Your task to perform on an android device: Open privacy settings Image 0: 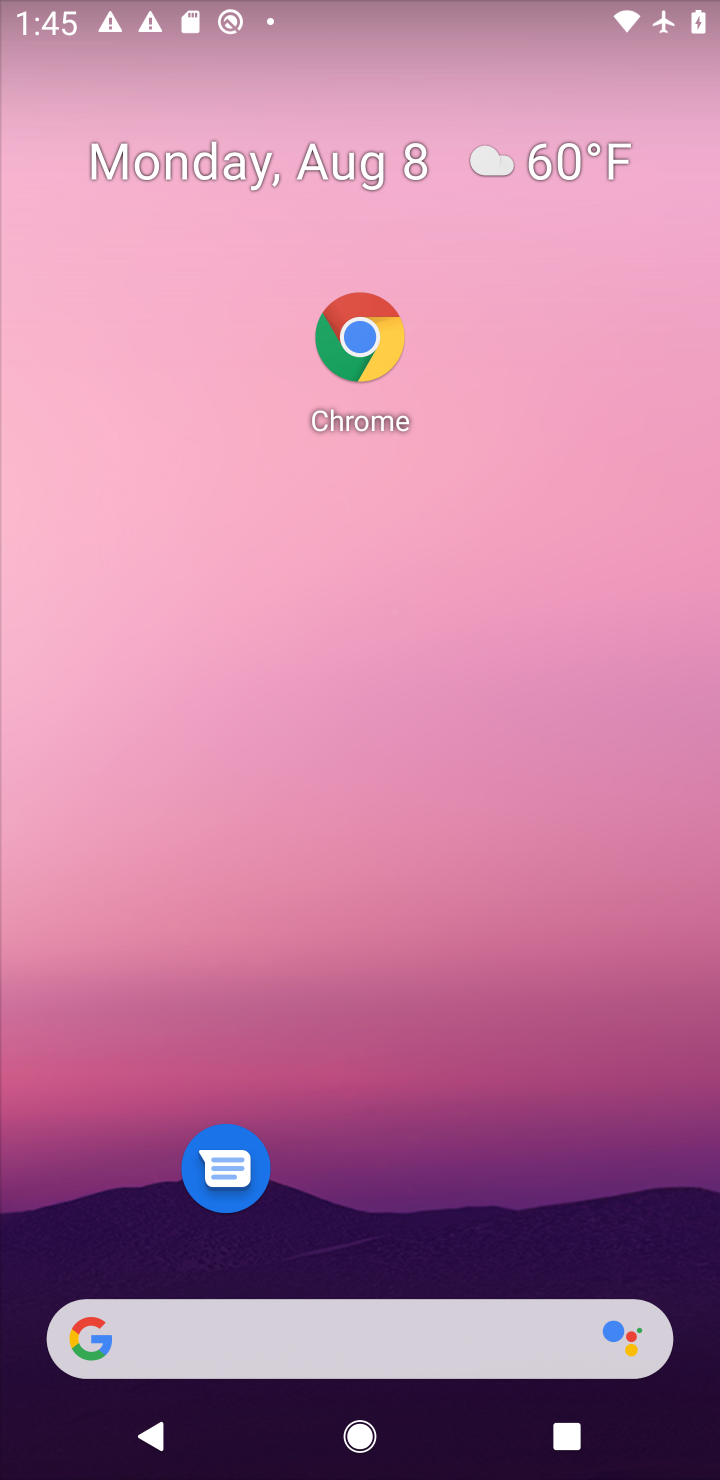
Step 0: drag from (445, 1256) to (173, 13)
Your task to perform on an android device: Open privacy settings Image 1: 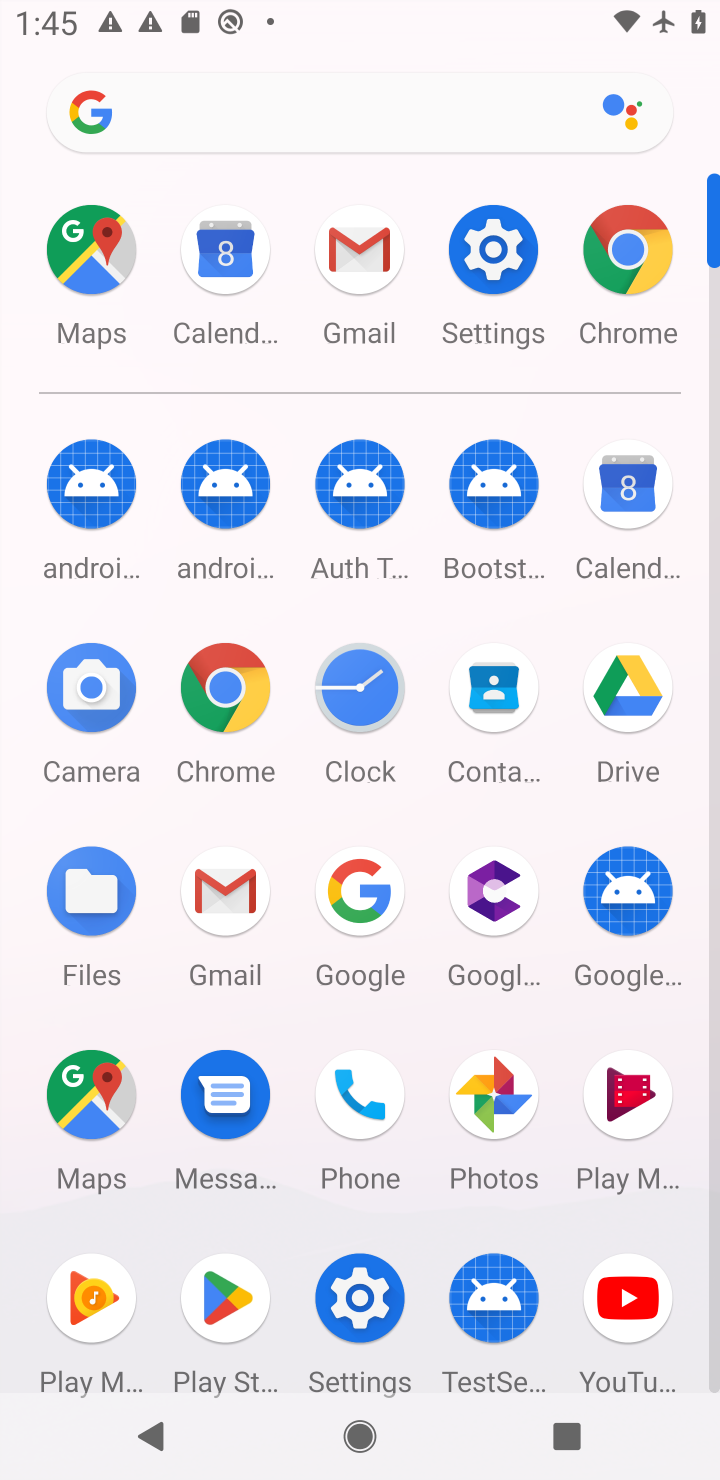
Step 1: click (500, 336)
Your task to perform on an android device: Open privacy settings Image 2: 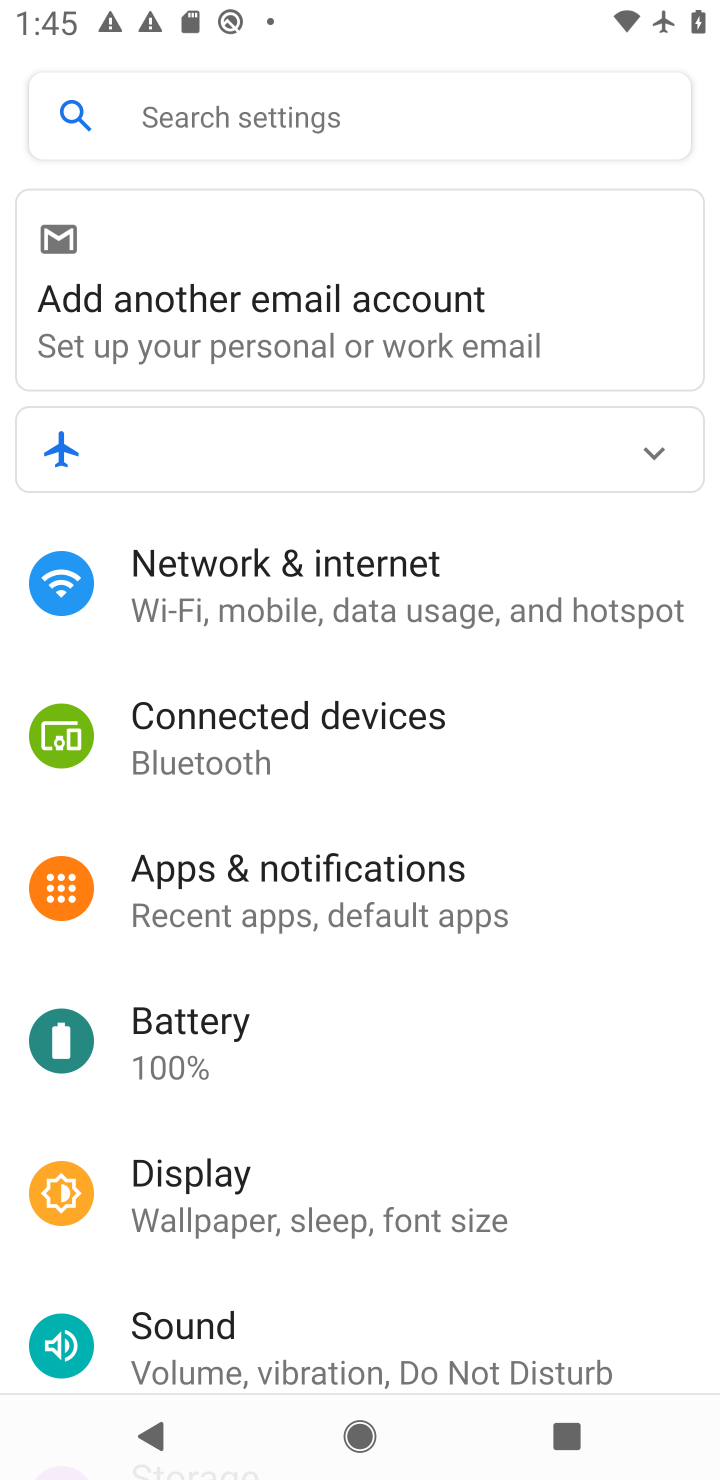
Step 2: drag from (406, 1290) to (453, 217)
Your task to perform on an android device: Open privacy settings Image 3: 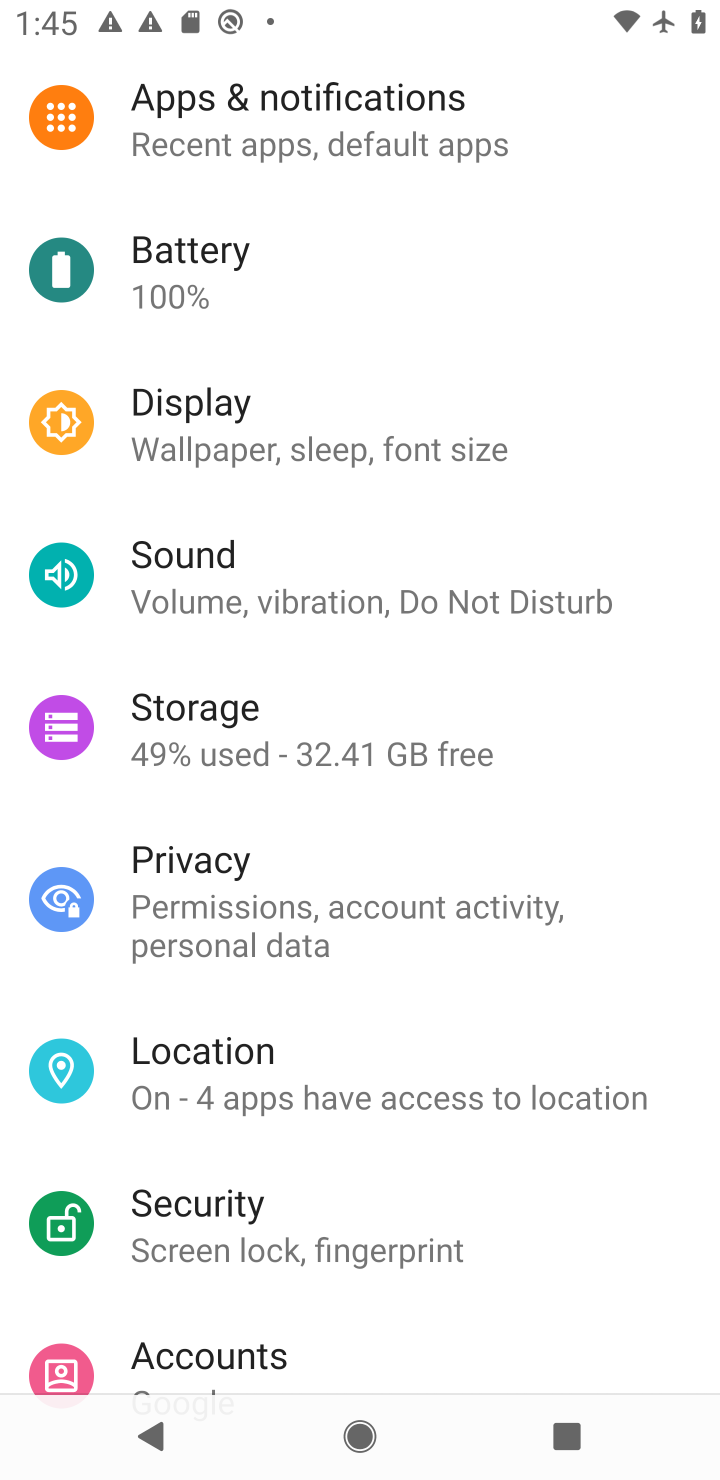
Step 3: click (354, 948)
Your task to perform on an android device: Open privacy settings Image 4: 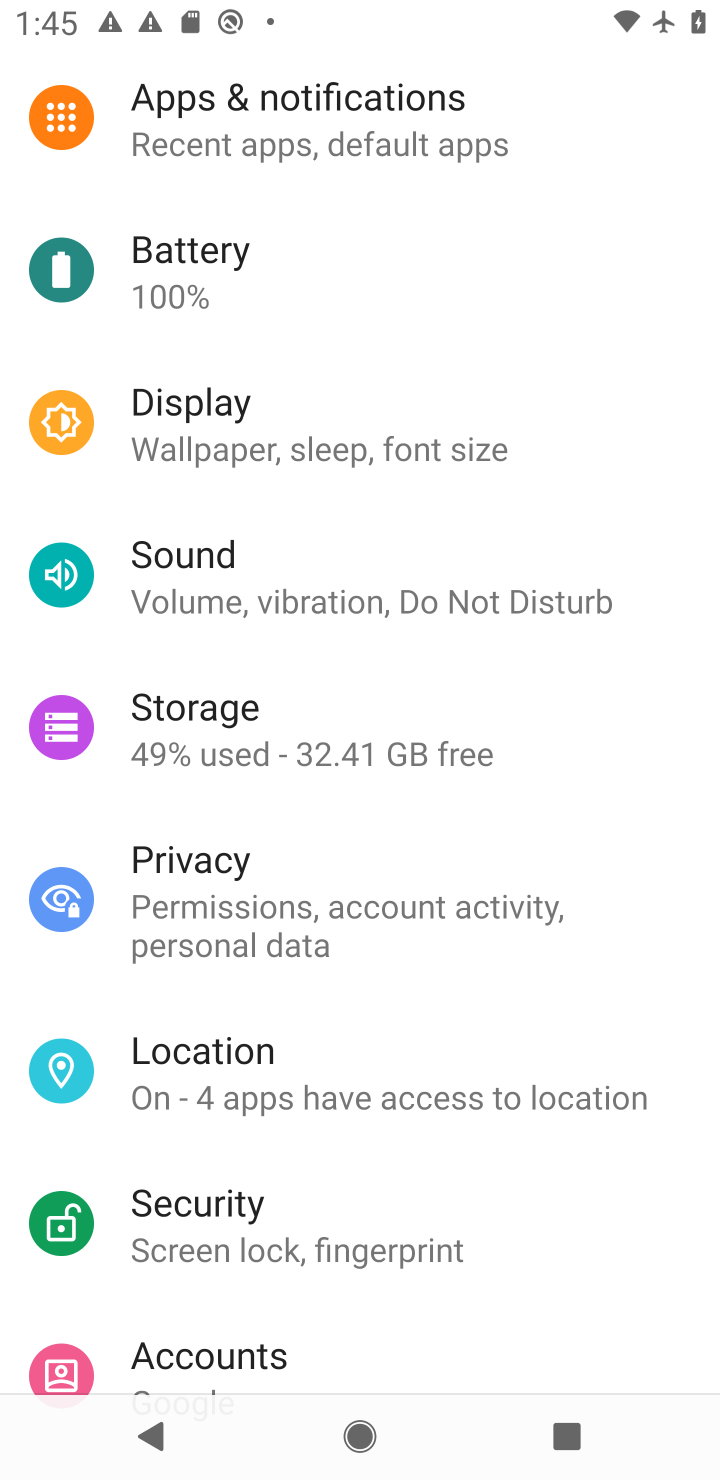
Step 4: task complete